Your task to perform on an android device: Open Google Chrome Image 0: 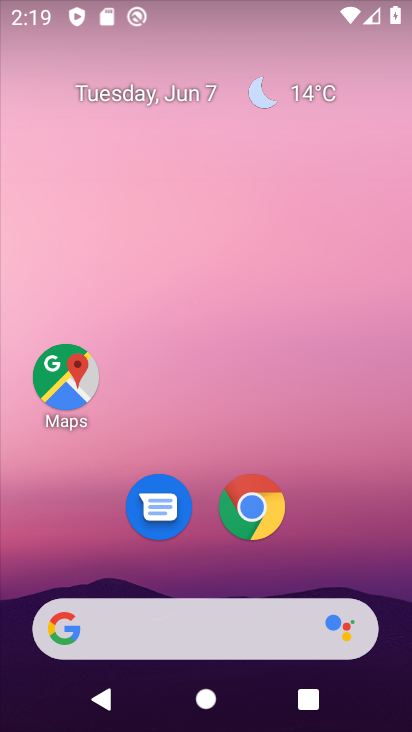
Step 0: click (256, 511)
Your task to perform on an android device: Open Google Chrome Image 1: 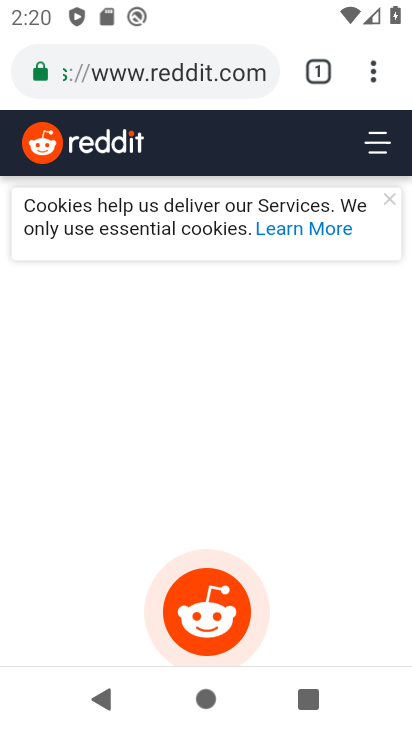
Step 1: task complete